Your task to perform on an android device: Open settings Image 0: 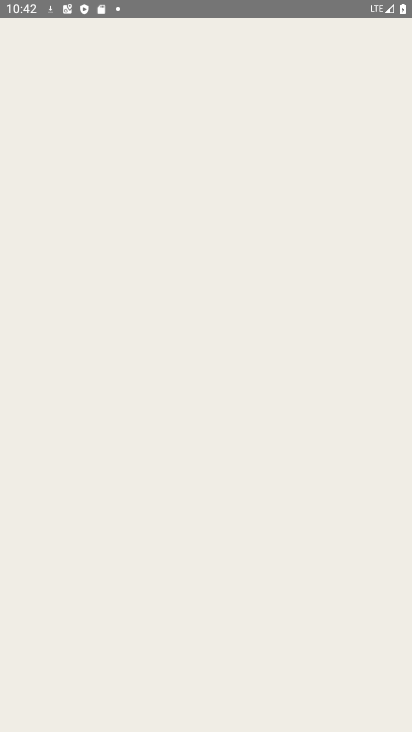
Step 0: drag from (222, 716) to (184, 284)
Your task to perform on an android device: Open settings Image 1: 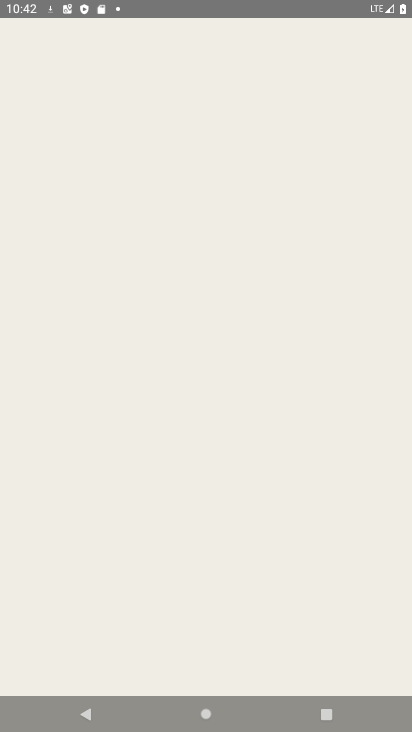
Step 1: press home button
Your task to perform on an android device: Open settings Image 2: 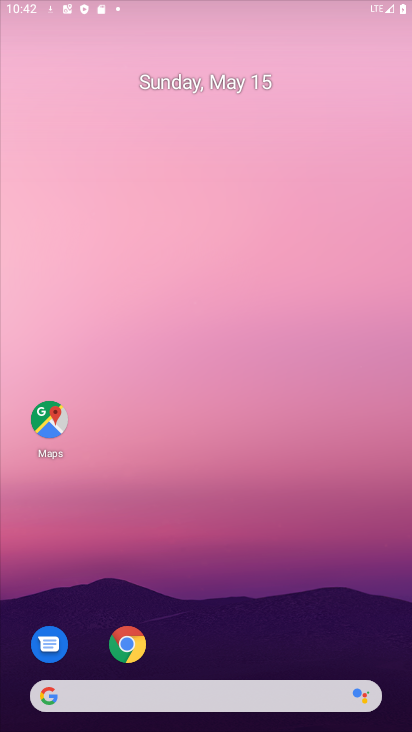
Step 2: drag from (229, 610) to (145, 228)
Your task to perform on an android device: Open settings Image 3: 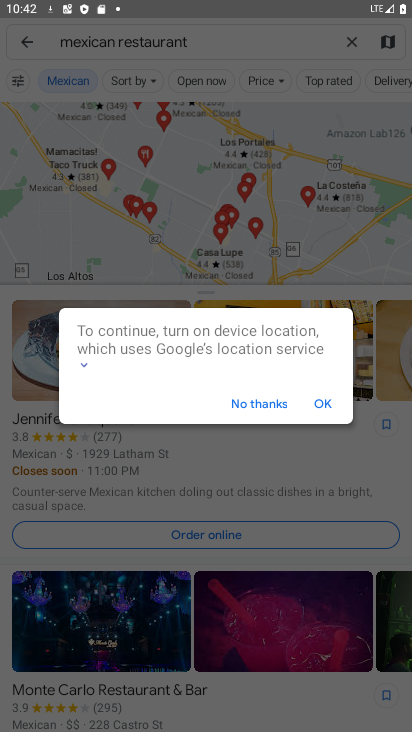
Step 3: click (263, 406)
Your task to perform on an android device: Open settings Image 4: 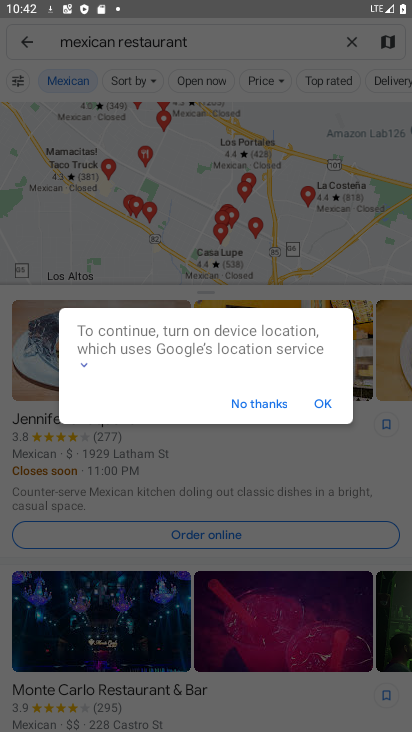
Step 4: click (258, 409)
Your task to perform on an android device: Open settings Image 5: 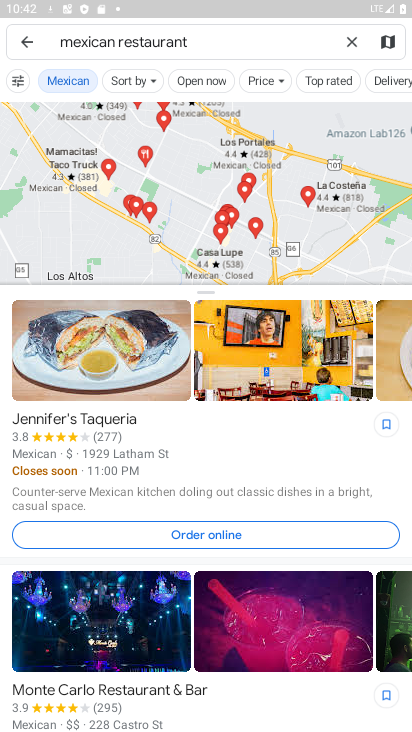
Step 5: press home button
Your task to perform on an android device: Open settings Image 6: 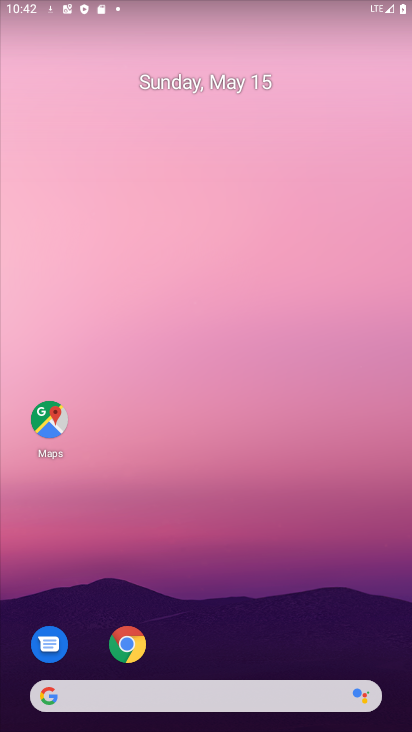
Step 6: drag from (234, 702) to (370, 276)
Your task to perform on an android device: Open settings Image 7: 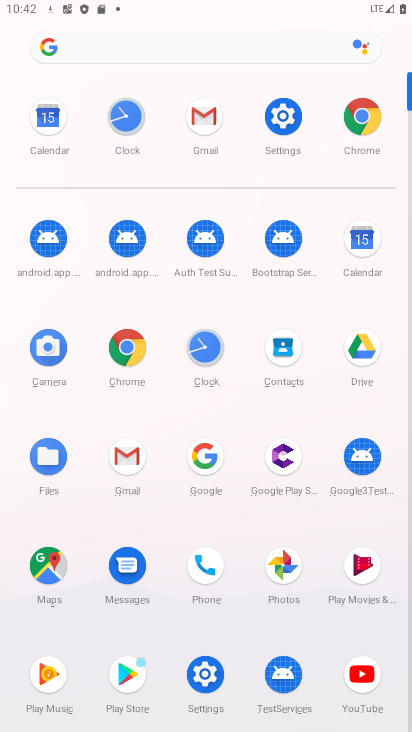
Step 7: click (287, 118)
Your task to perform on an android device: Open settings Image 8: 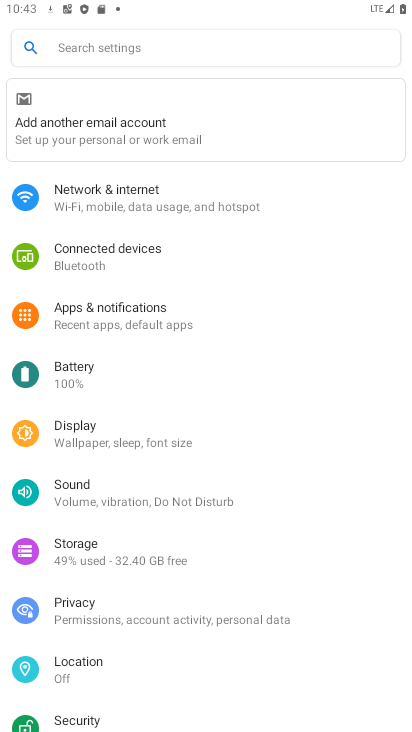
Step 8: task complete